Your task to perform on an android device: open sync settings in chrome Image 0: 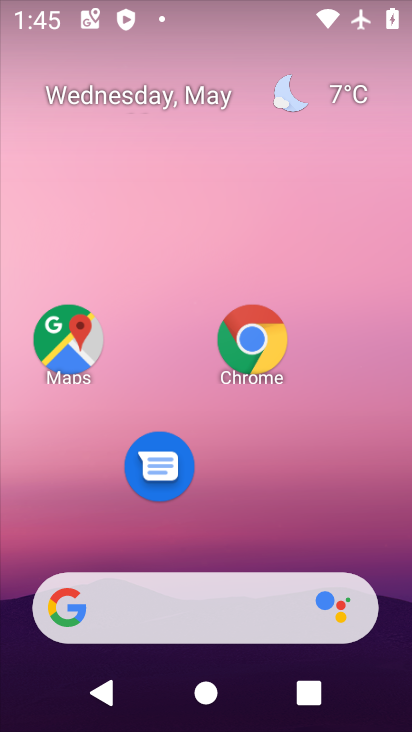
Step 0: drag from (174, 591) to (301, 90)
Your task to perform on an android device: open sync settings in chrome Image 1: 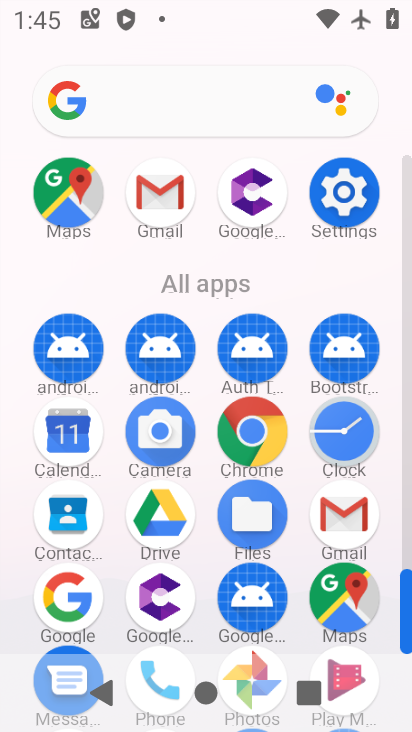
Step 1: click (257, 427)
Your task to perform on an android device: open sync settings in chrome Image 2: 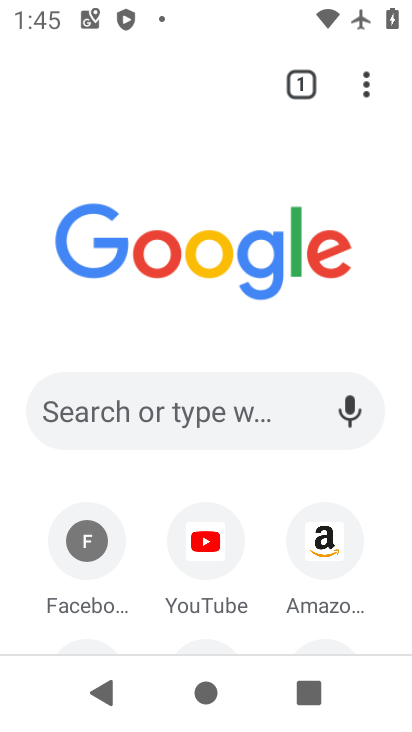
Step 2: click (368, 90)
Your task to perform on an android device: open sync settings in chrome Image 3: 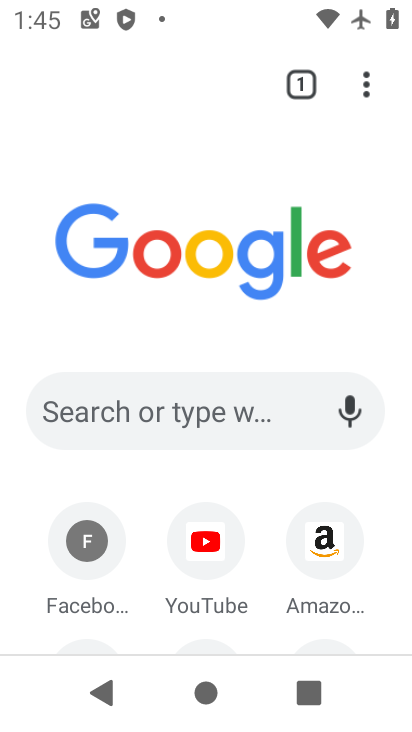
Step 3: click (363, 101)
Your task to perform on an android device: open sync settings in chrome Image 4: 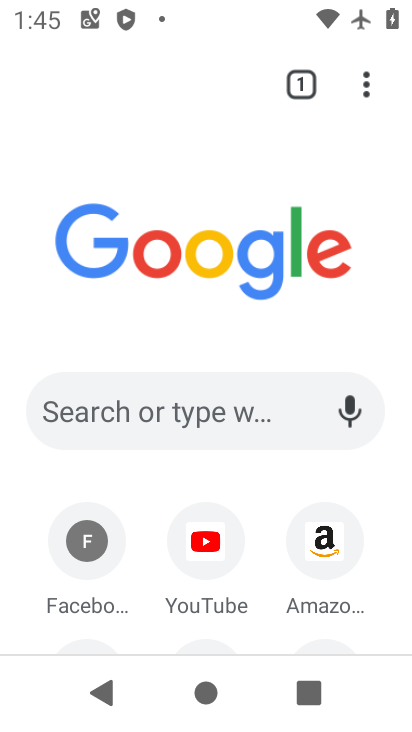
Step 4: drag from (368, 83) to (207, 526)
Your task to perform on an android device: open sync settings in chrome Image 5: 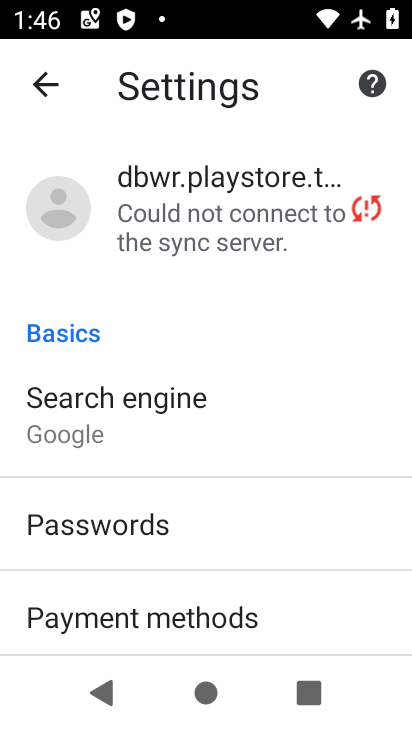
Step 5: click (201, 254)
Your task to perform on an android device: open sync settings in chrome Image 6: 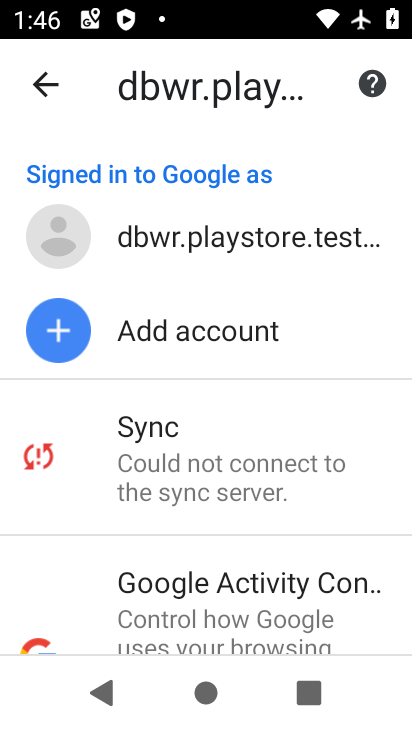
Step 6: click (146, 440)
Your task to perform on an android device: open sync settings in chrome Image 7: 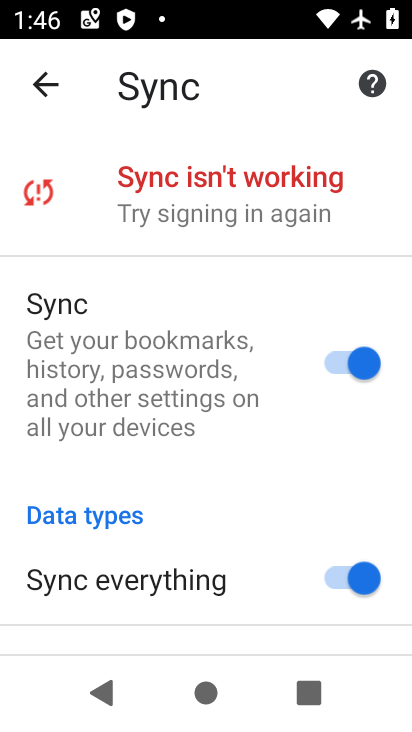
Step 7: click (49, 185)
Your task to perform on an android device: open sync settings in chrome Image 8: 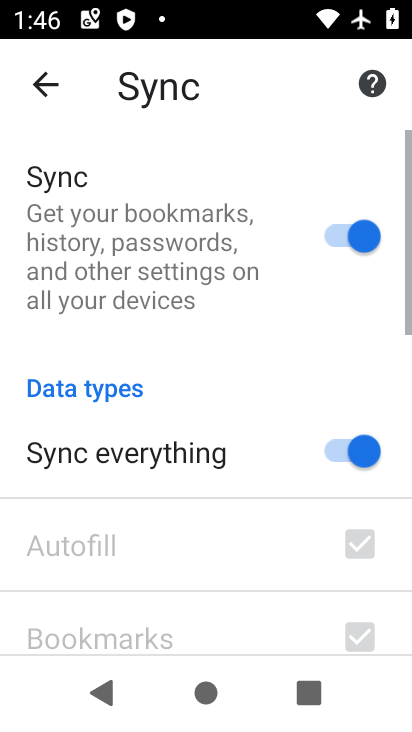
Step 8: task complete